Your task to perform on an android device: uninstall "Life360: Find Family & Friends" Image 0: 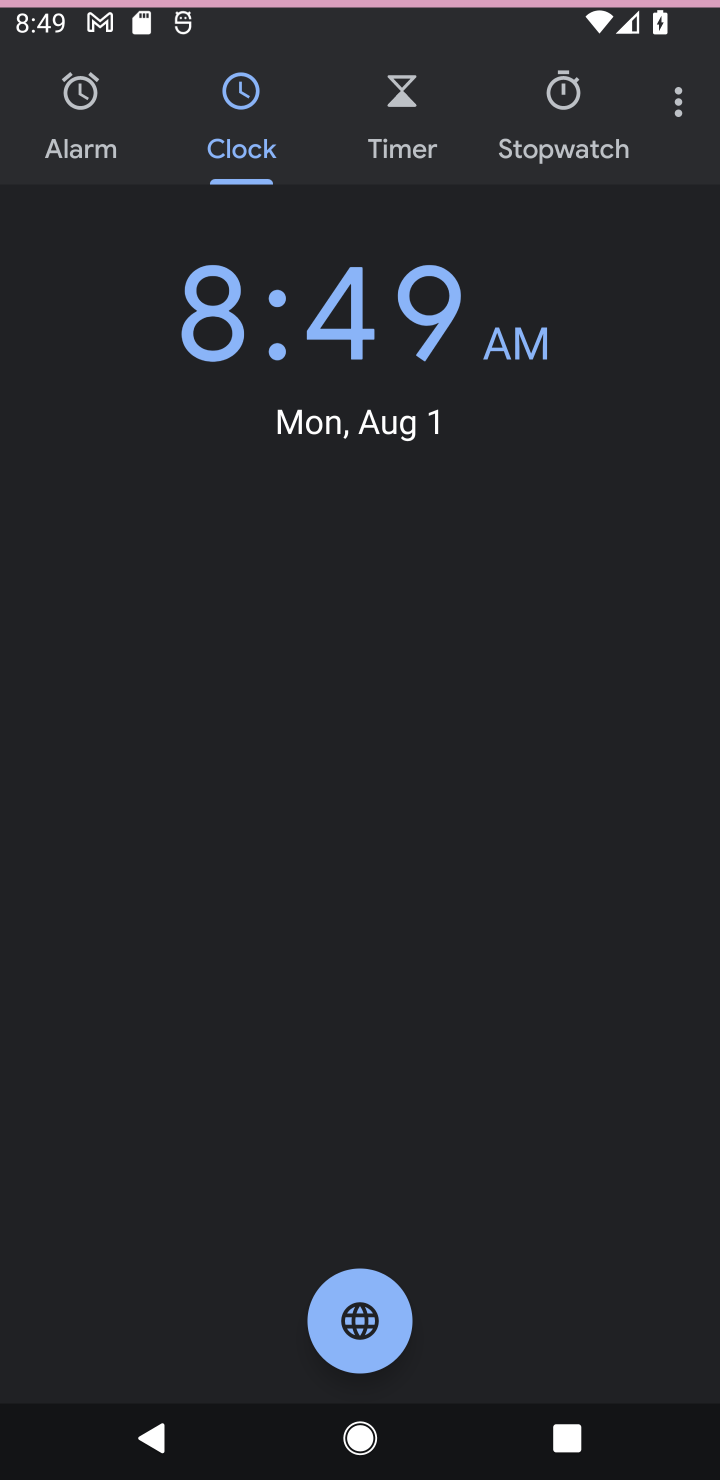
Step 0: press home button
Your task to perform on an android device: uninstall "Life360: Find Family & Friends" Image 1: 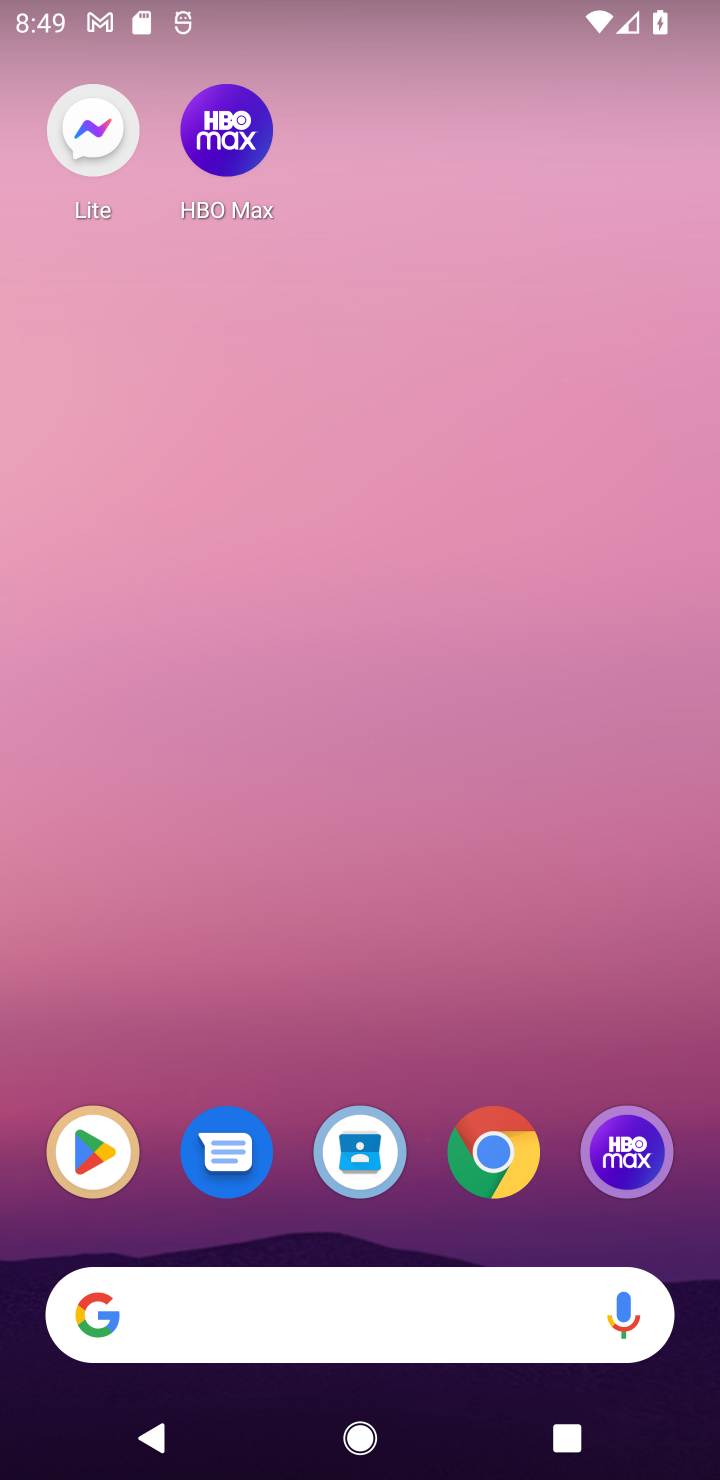
Step 1: drag from (382, 1235) to (241, 211)
Your task to perform on an android device: uninstall "Life360: Find Family & Friends" Image 2: 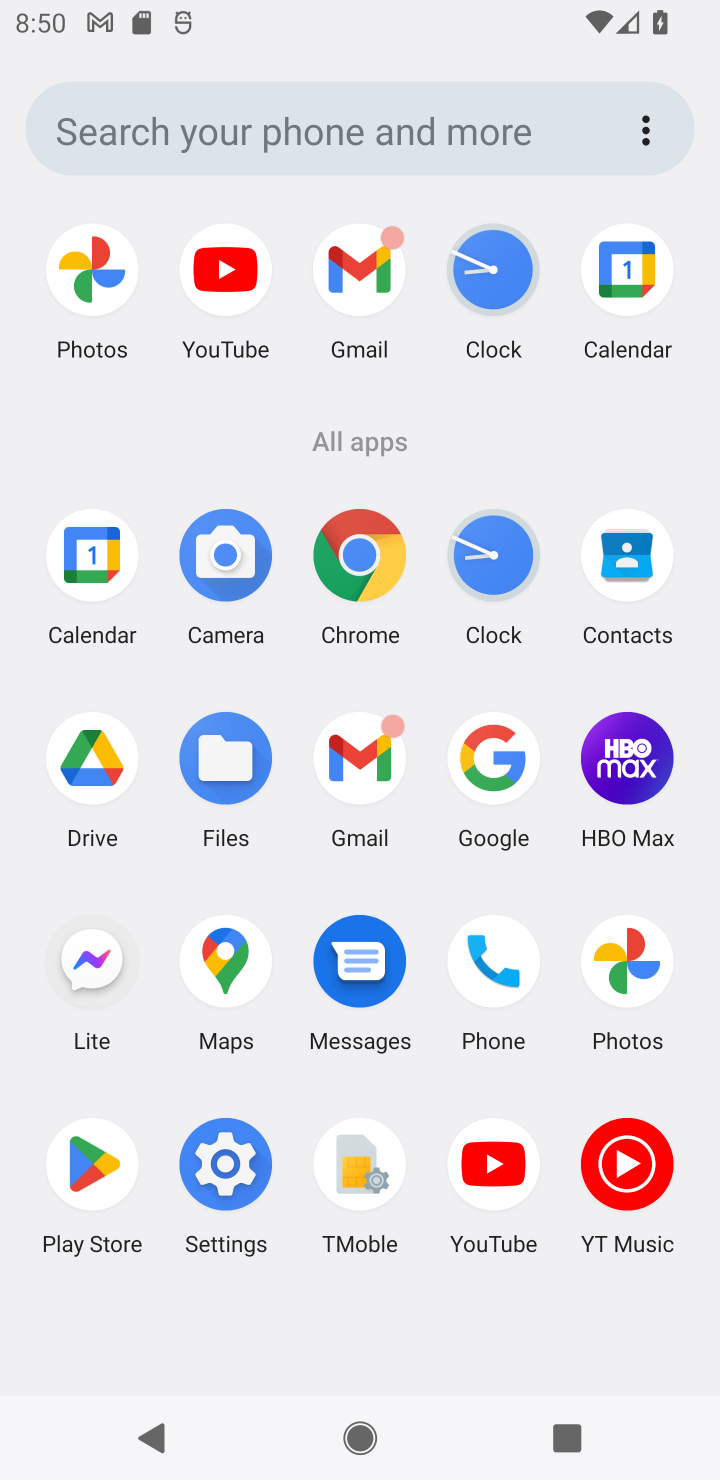
Step 2: click (126, 1167)
Your task to perform on an android device: uninstall "Life360: Find Family & Friends" Image 3: 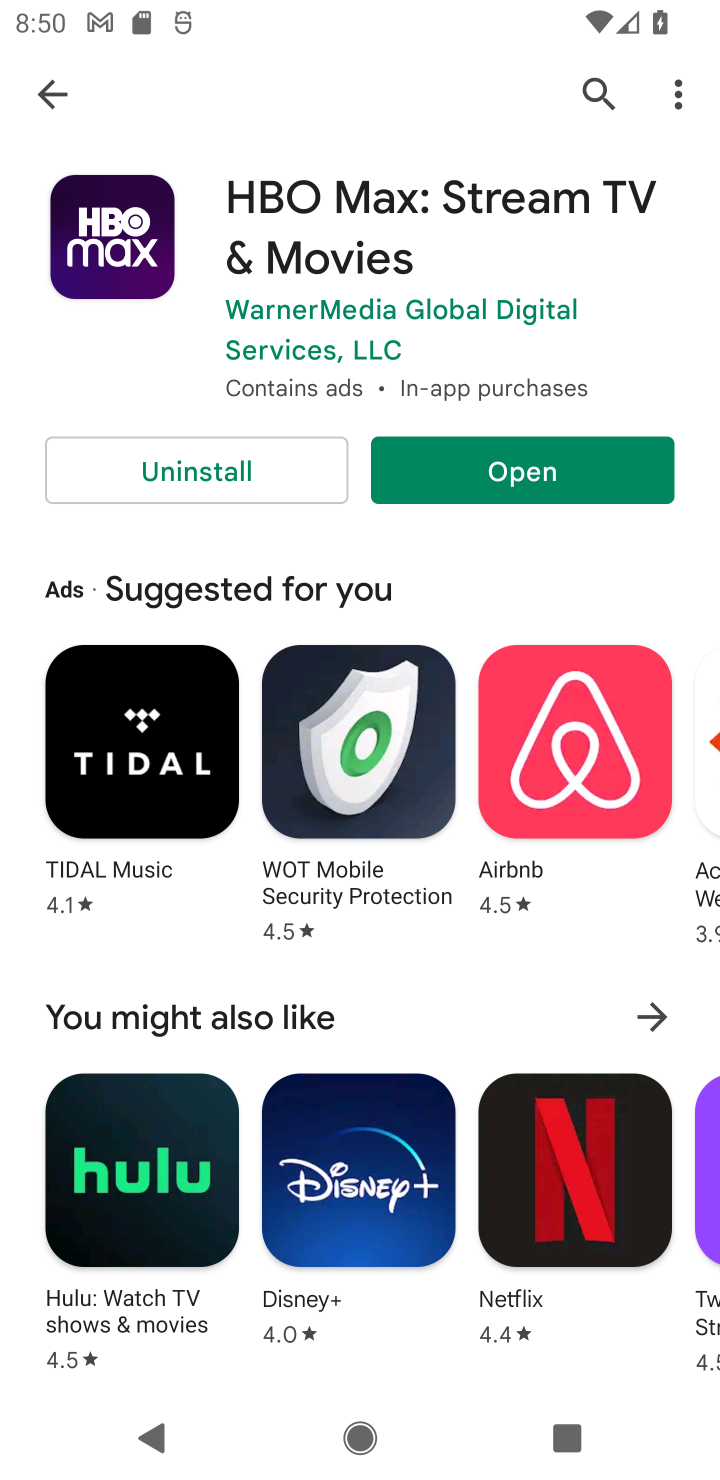
Step 3: click (78, 95)
Your task to perform on an android device: uninstall "Life360: Find Family & Friends" Image 4: 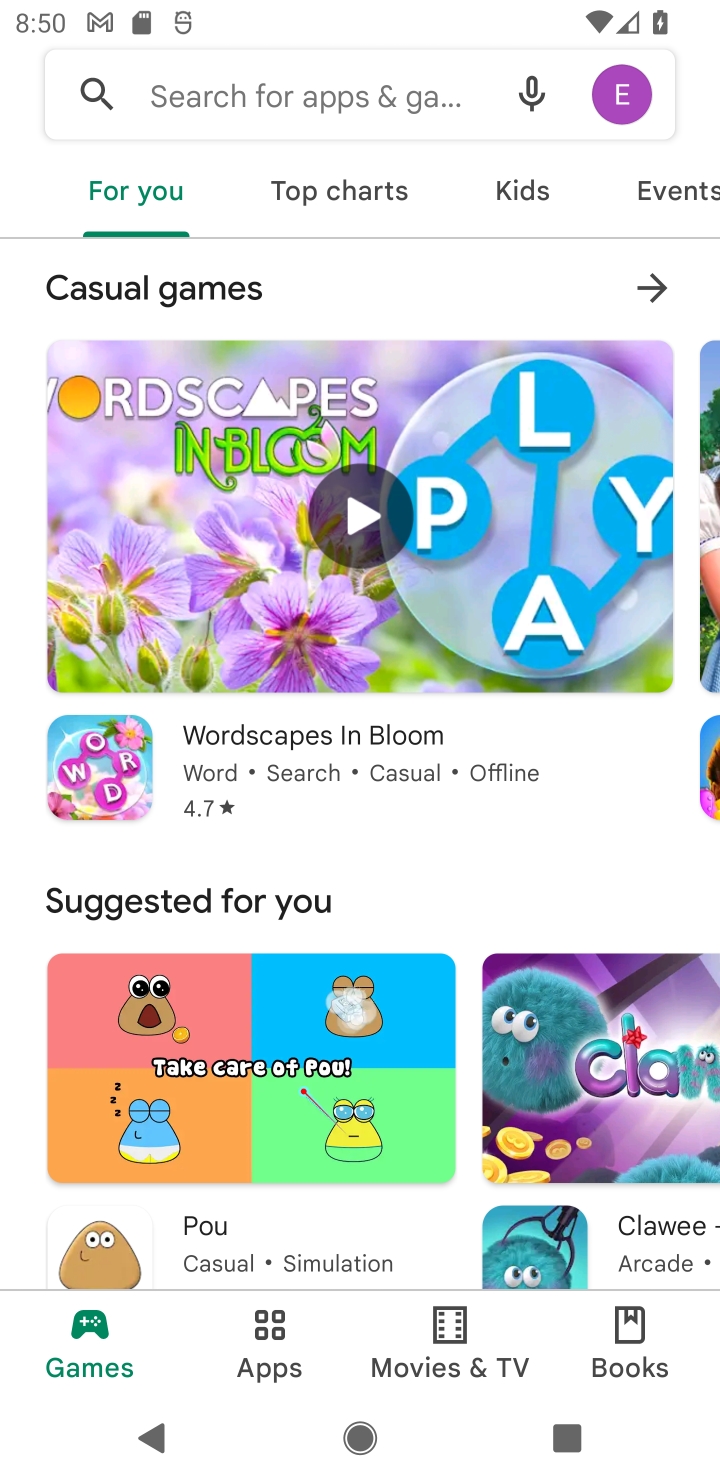
Step 4: click (213, 91)
Your task to perform on an android device: uninstall "Life360: Find Family & Friends" Image 5: 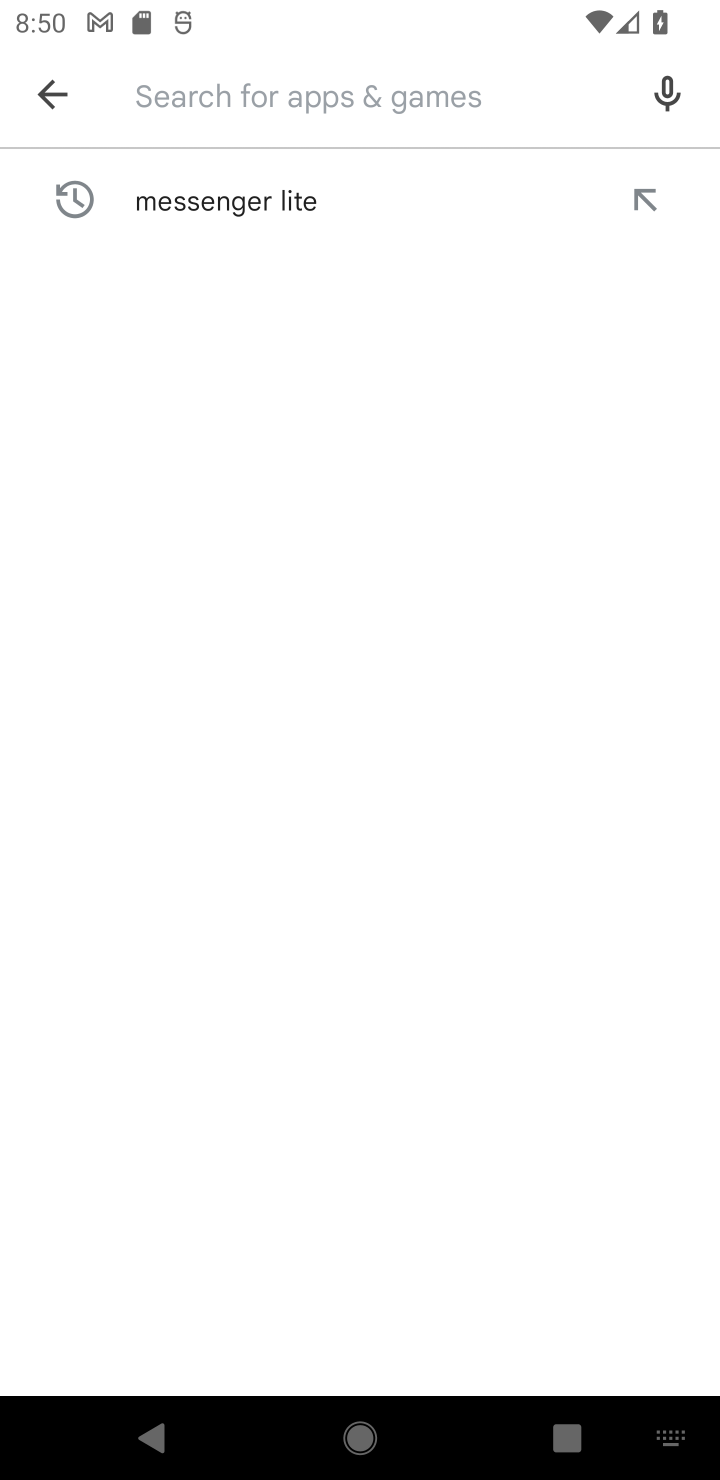
Step 5: type "Life360"
Your task to perform on an android device: uninstall "Life360: Find Family & Friends" Image 6: 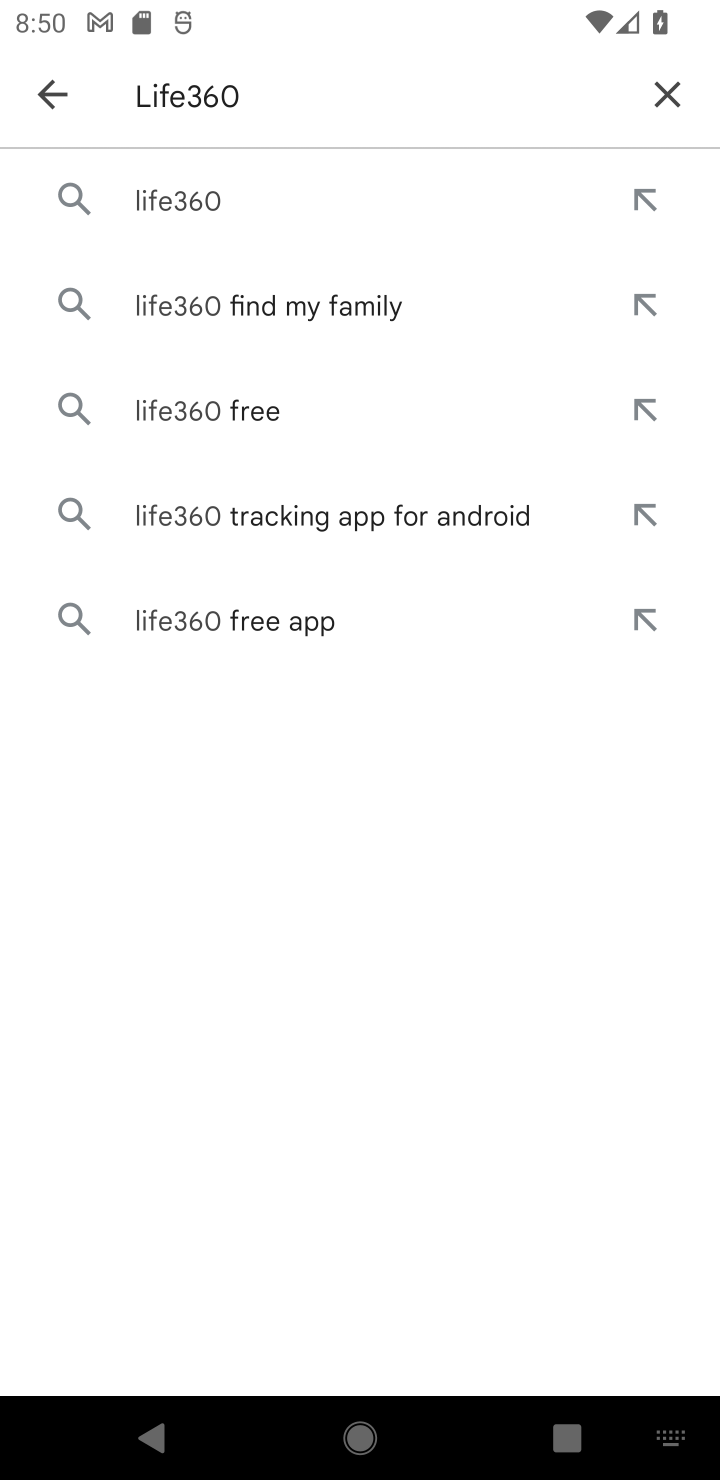
Step 6: click (207, 212)
Your task to perform on an android device: uninstall "Life360: Find Family & Friends" Image 7: 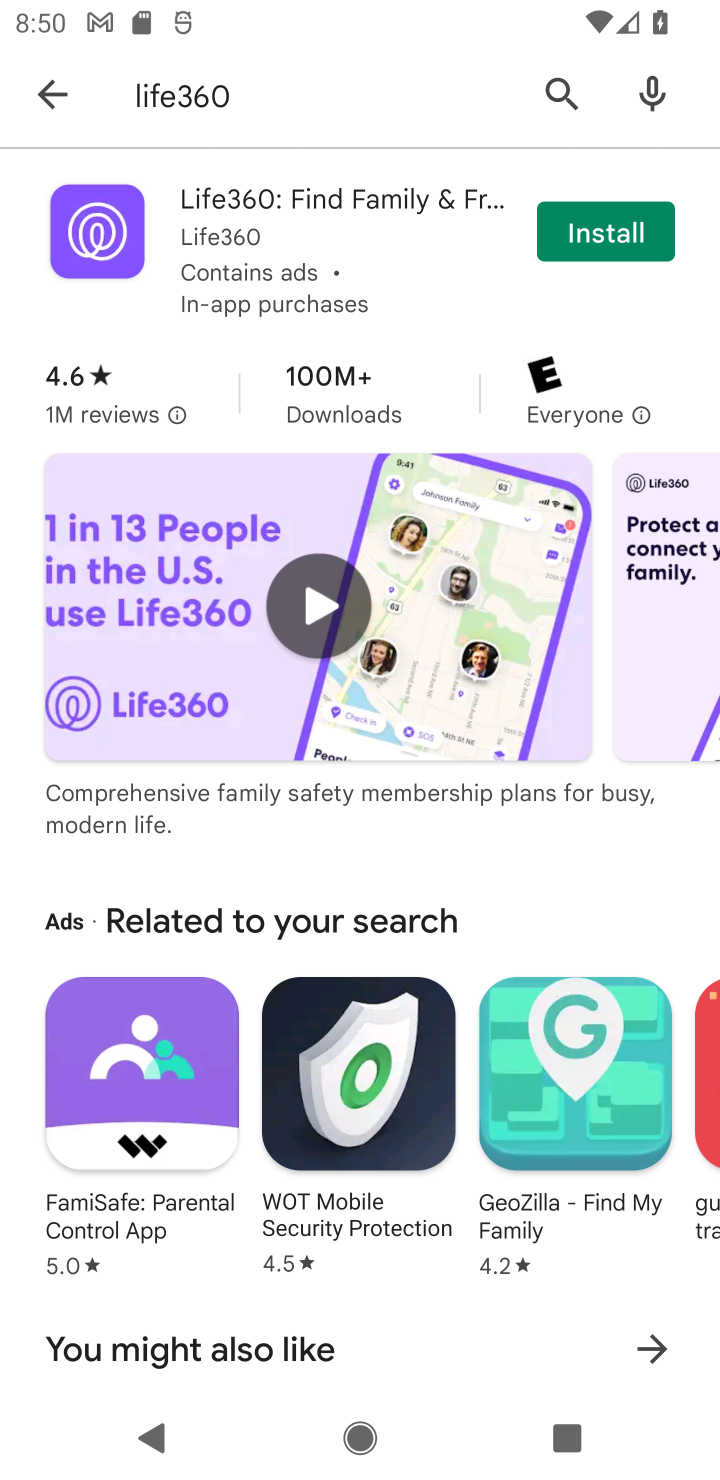
Step 7: click (310, 286)
Your task to perform on an android device: uninstall "Life360: Find Family & Friends" Image 8: 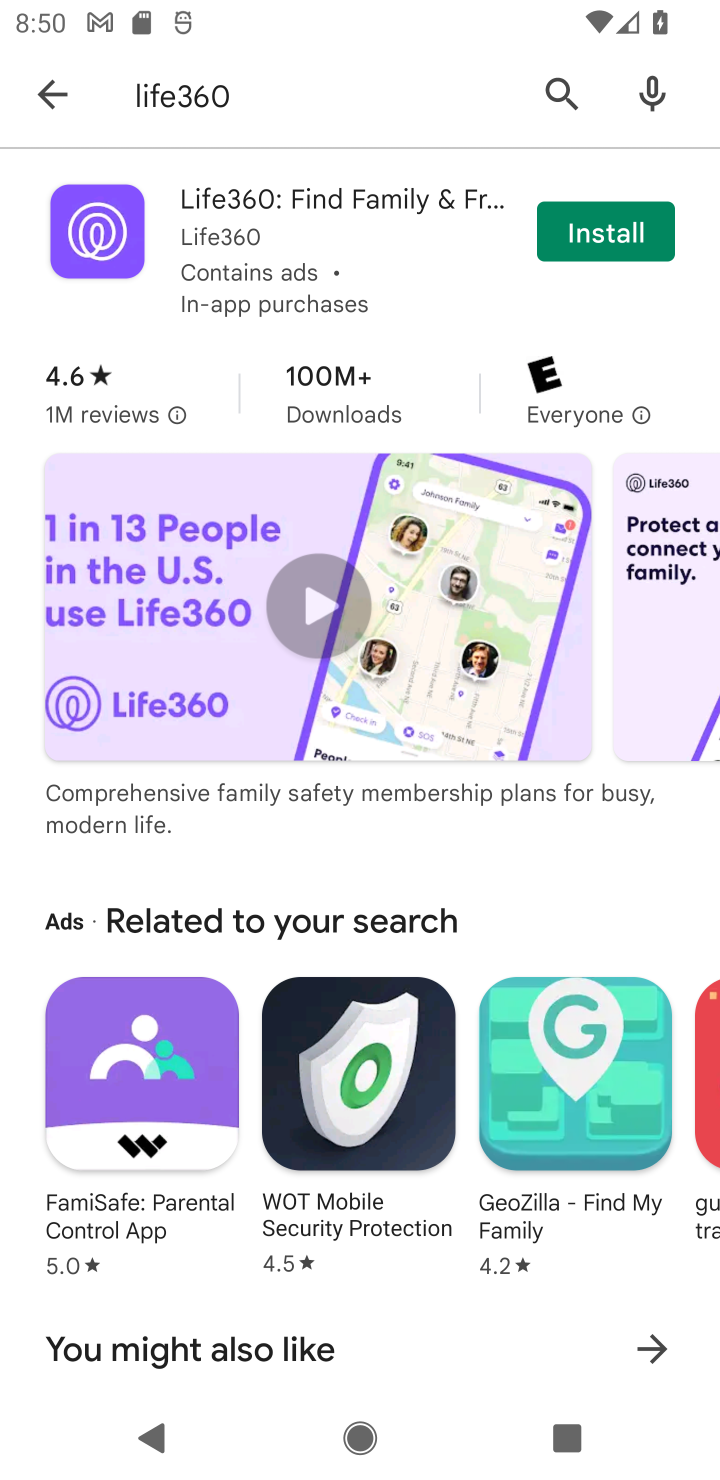
Step 8: task complete